Your task to perform on an android device: Search for the best 4k TVs Image 0: 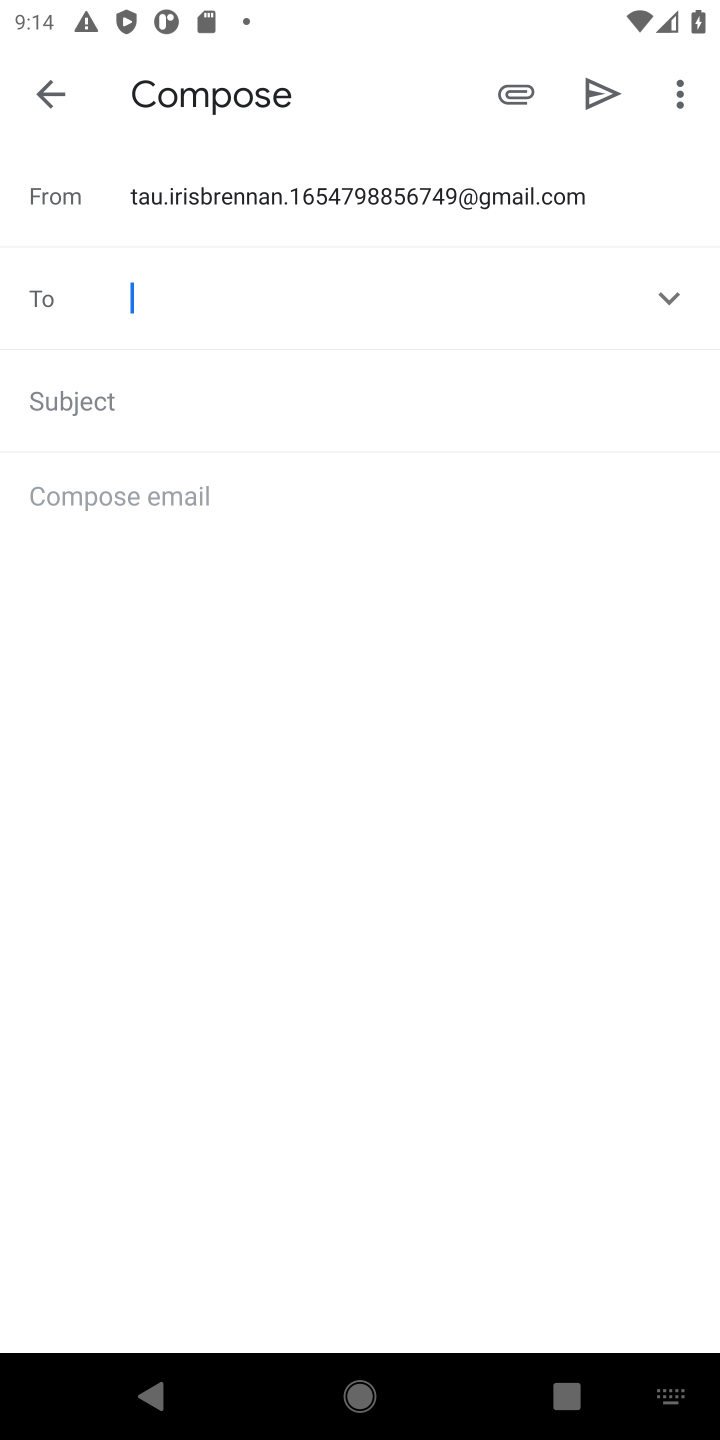
Step 0: press home button
Your task to perform on an android device: Search for the best 4k TVs Image 1: 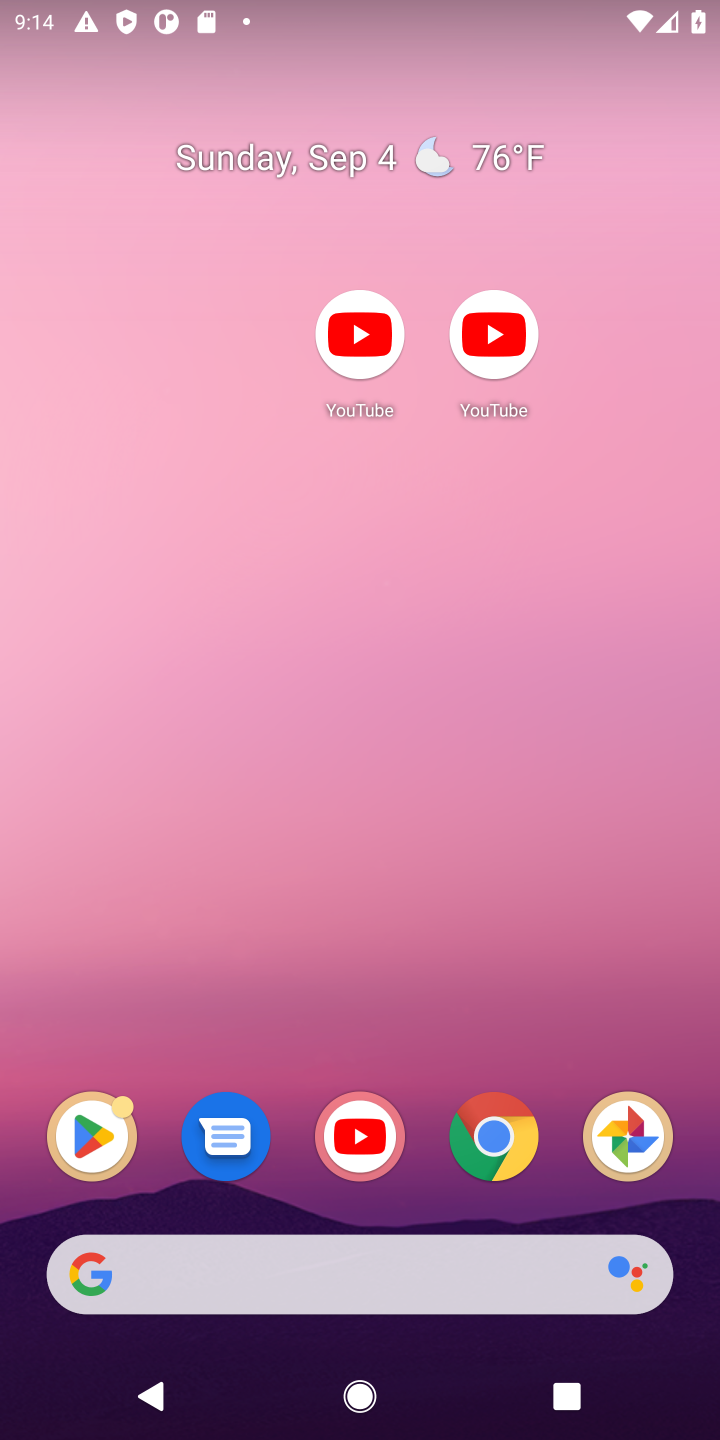
Step 1: click (126, 8)
Your task to perform on an android device: Search for the best 4k TVs Image 2: 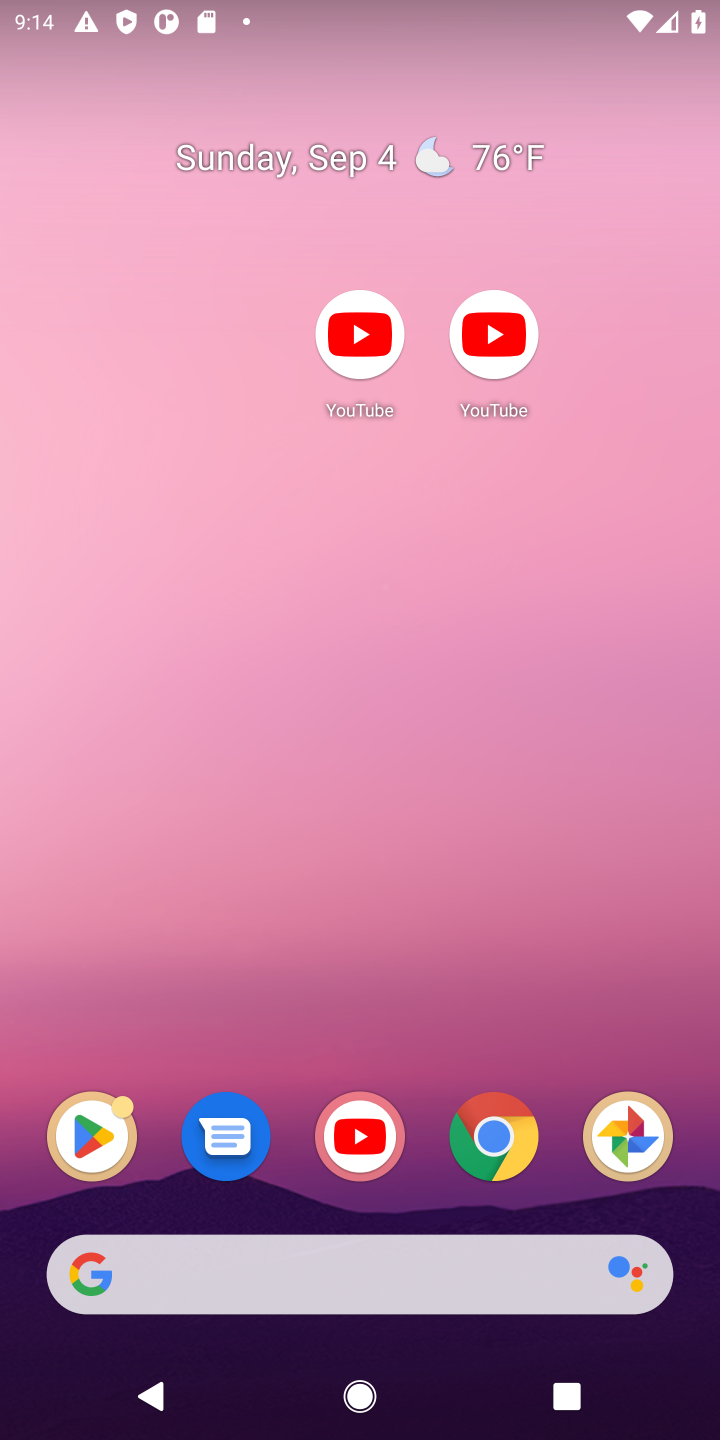
Step 2: click (490, 1137)
Your task to perform on an android device: Search for the best 4k TVs Image 3: 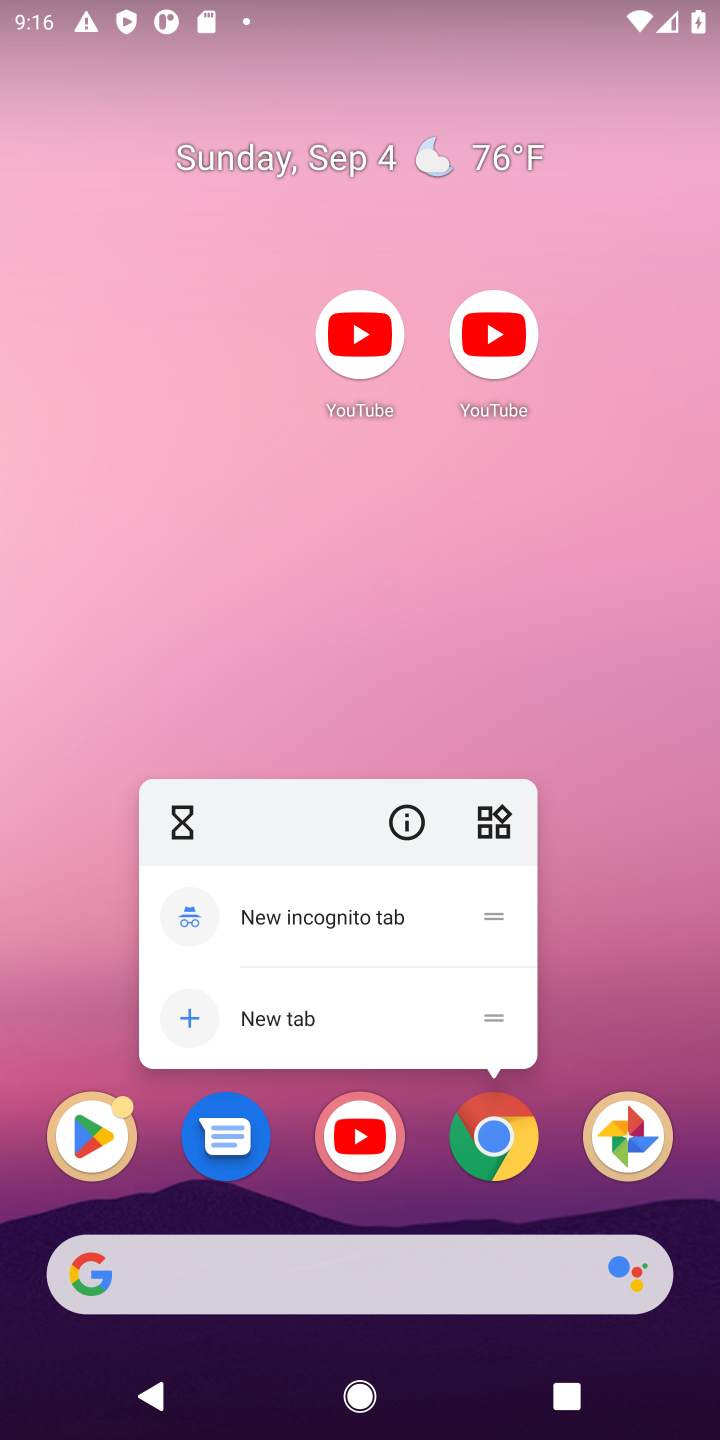
Step 3: drag from (90, 122) to (35, 0)
Your task to perform on an android device: Search for the best 4k TVs Image 4: 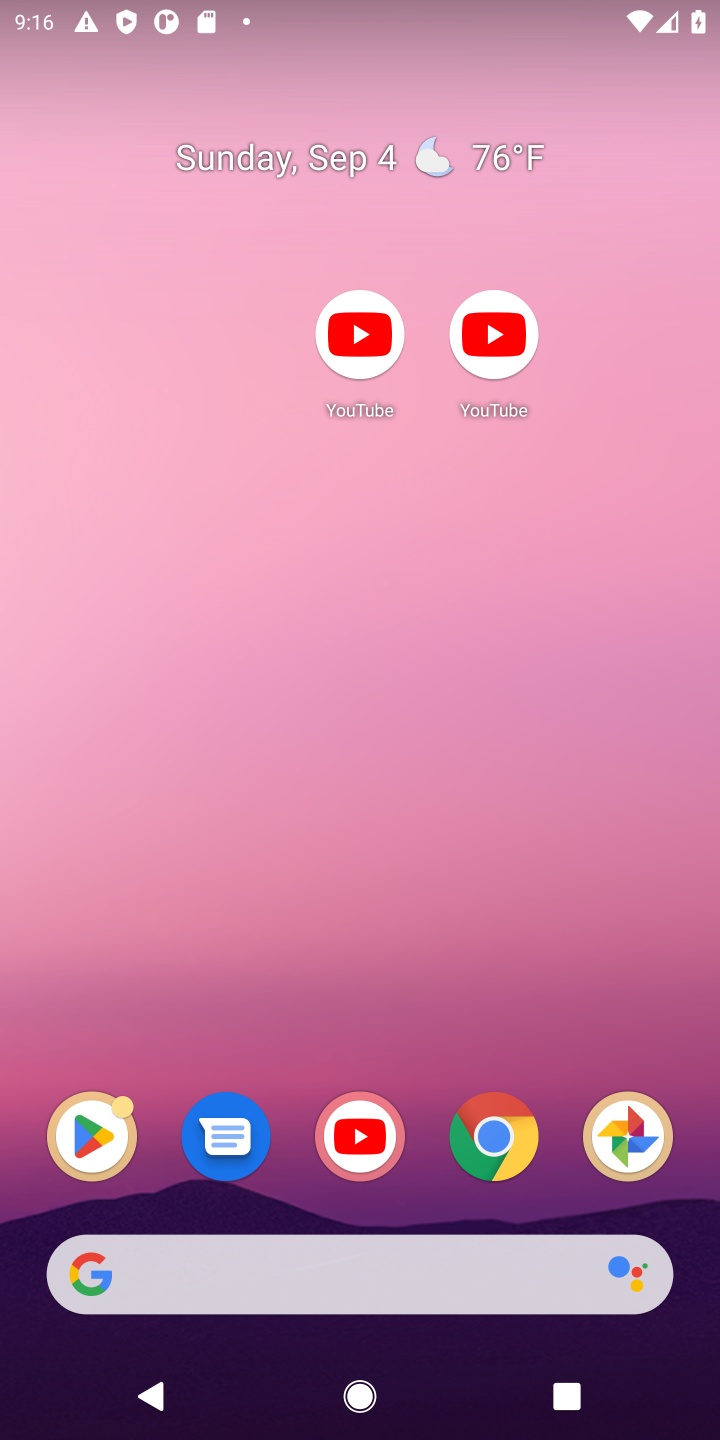
Step 4: click (389, 1092)
Your task to perform on an android device: Search for the best 4k TVs Image 5: 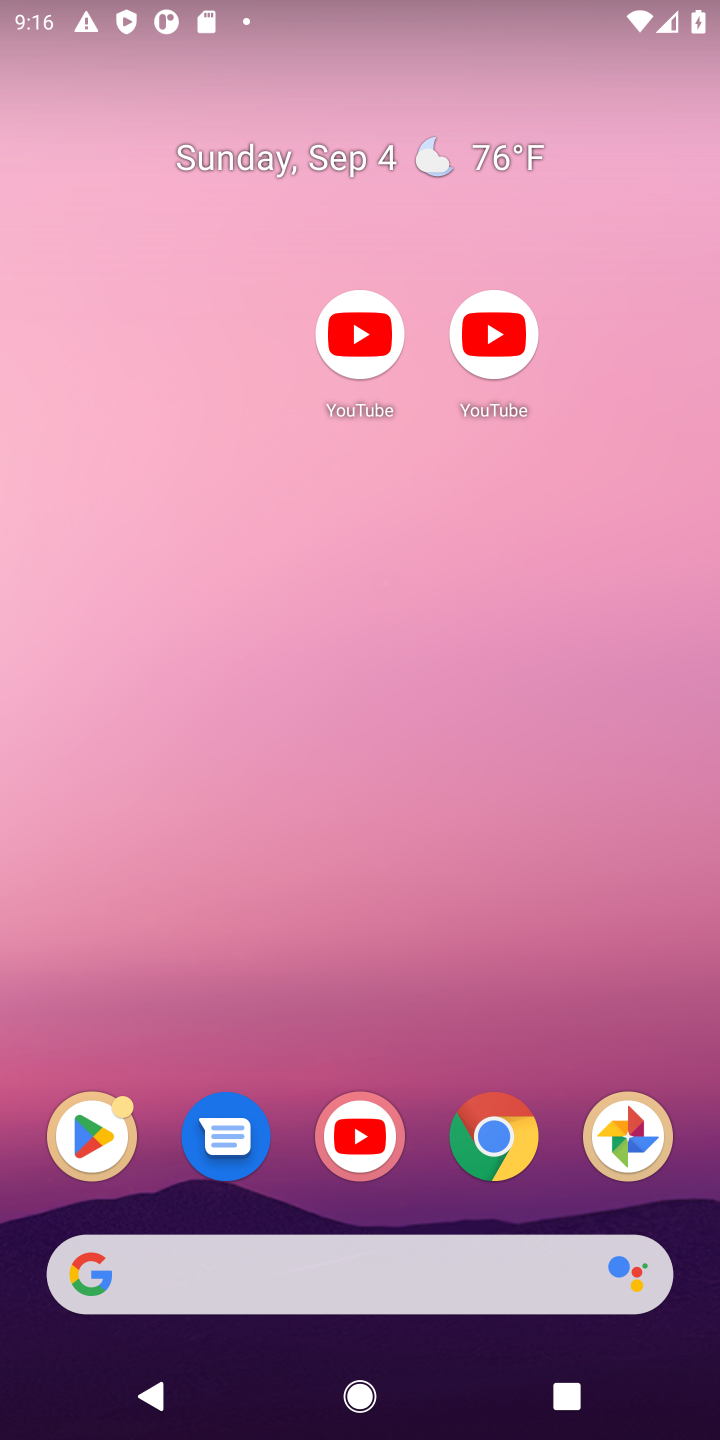
Step 5: drag from (219, 555) to (200, 157)
Your task to perform on an android device: Search for the best 4k TVs Image 6: 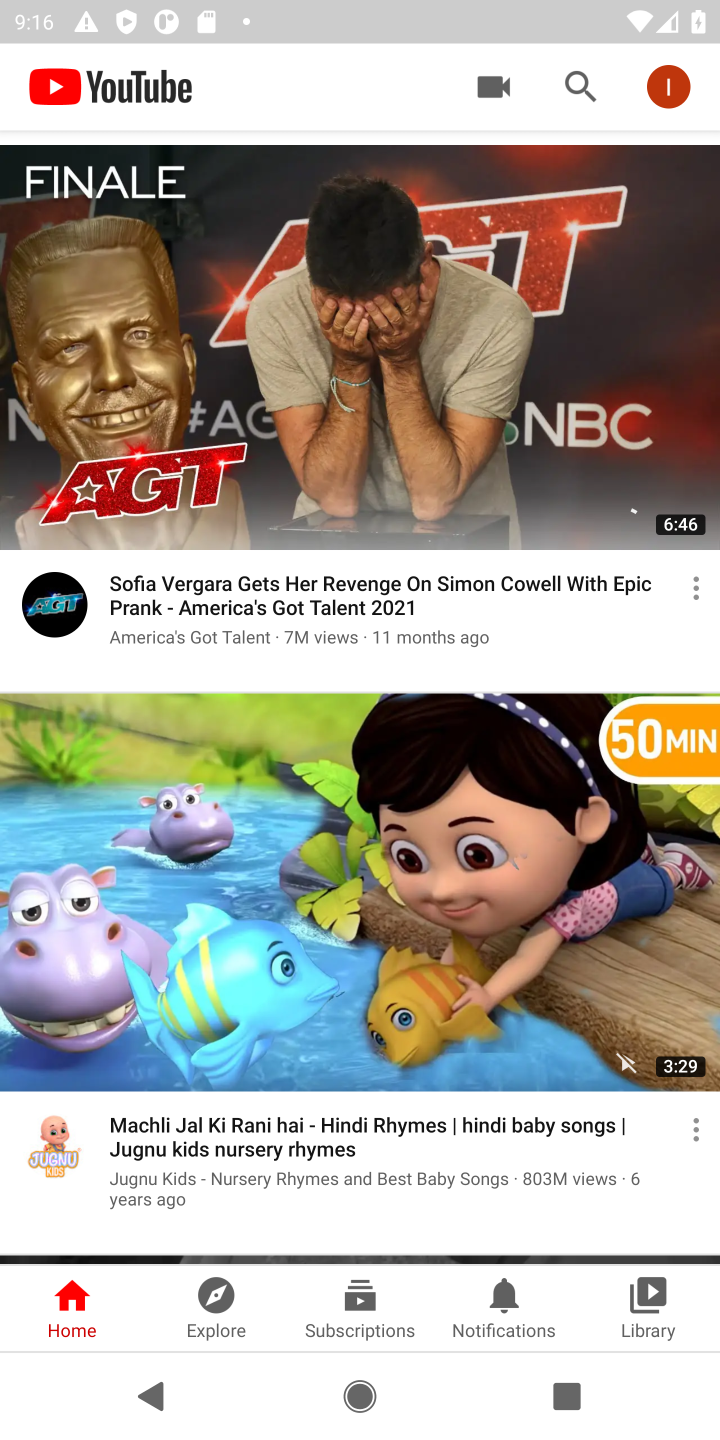
Step 6: click (558, 102)
Your task to perform on an android device: Search for the best 4k TVs Image 7: 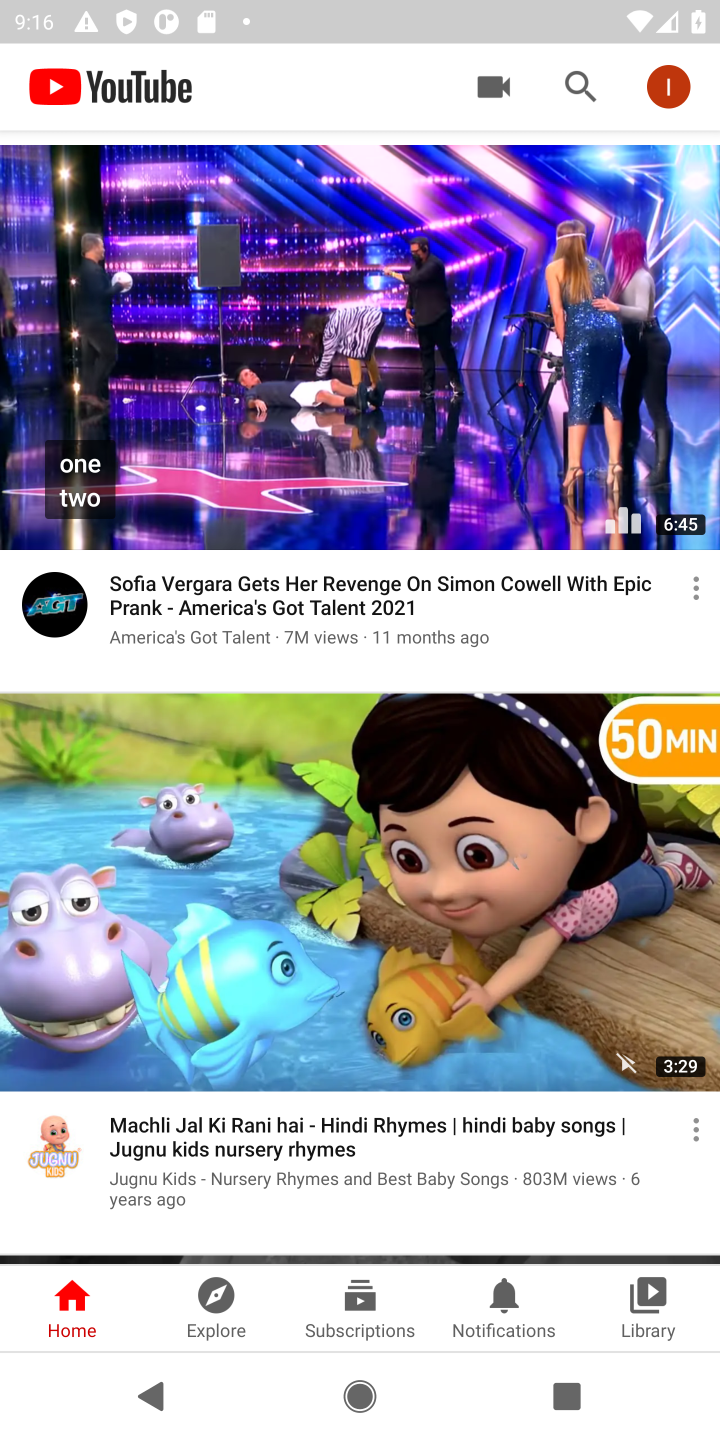
Step 7: press back button
Your task to perform on an android device: Search for the best 4k TVs Image 8: 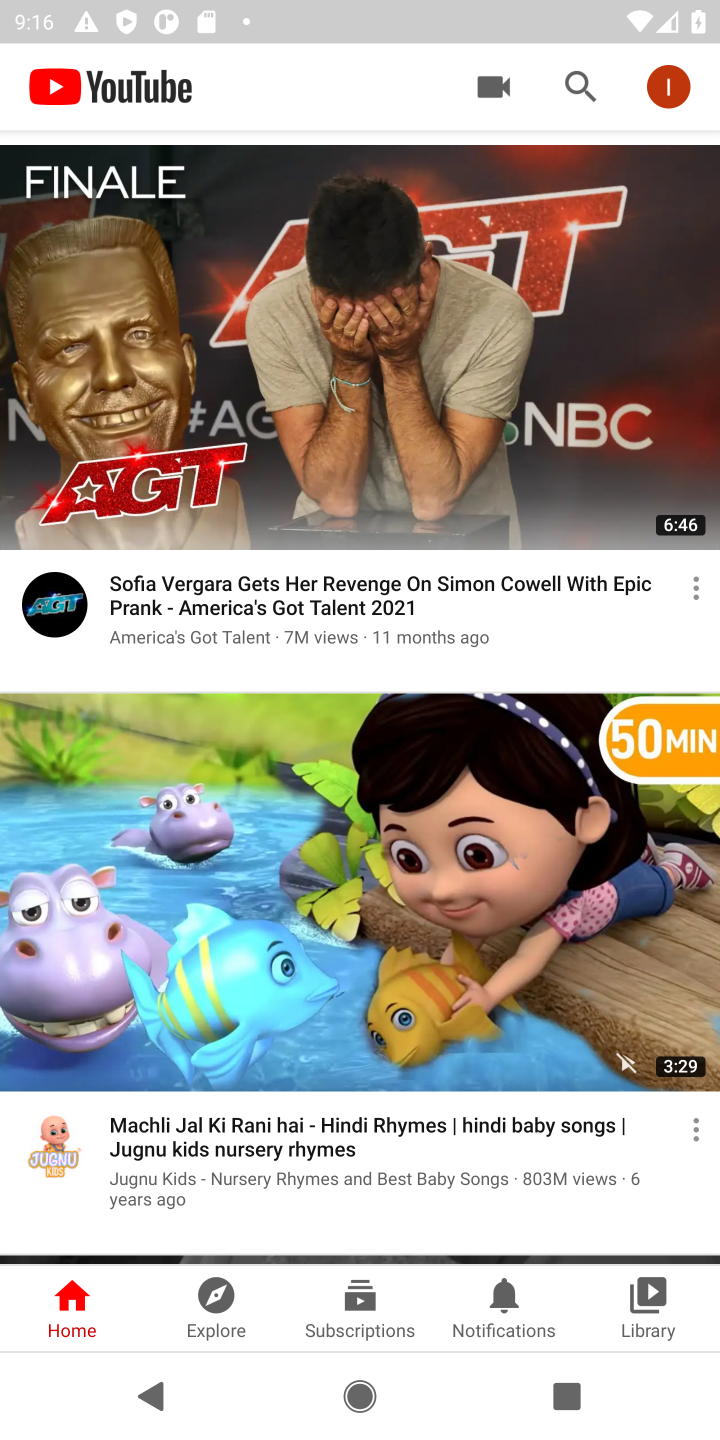
Step 8: press home button
Your task to perform on an android device: Search for the best 4k TVs Image 9: 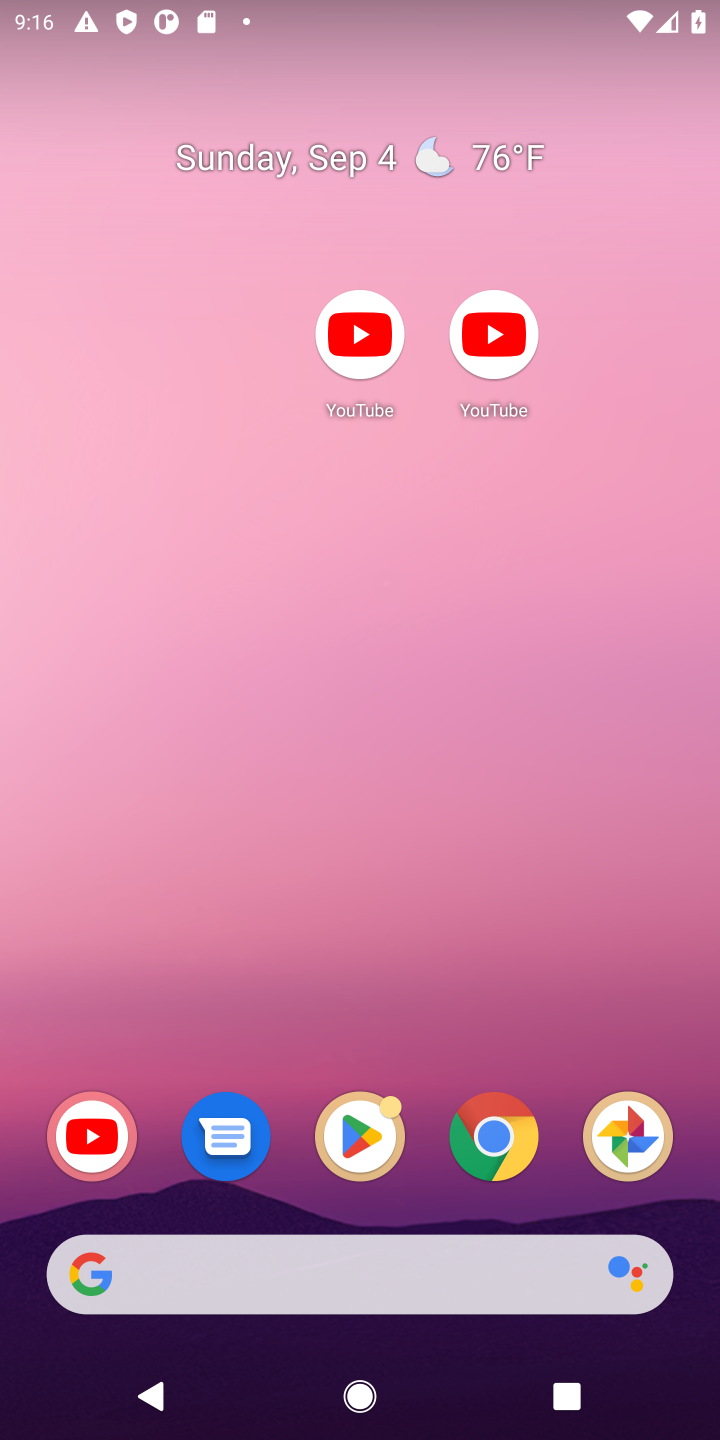
Step 9: drag from (349, 1047) to (226, 16)
Your task to perform on an android device: Search for the best 4k TVs Image 10: 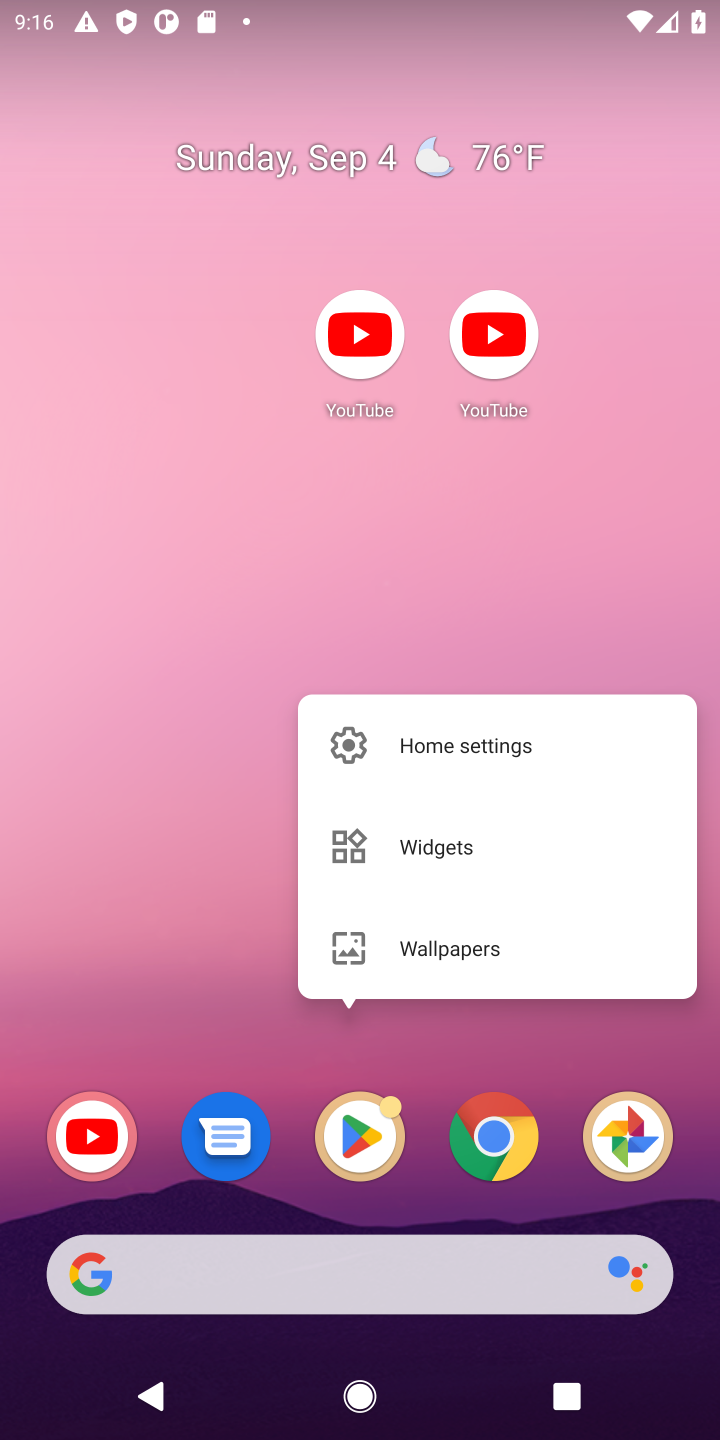
Step 10: click (425, 1178)
Your task to perform on an android device: Search for the best 4k TVs Image 11: 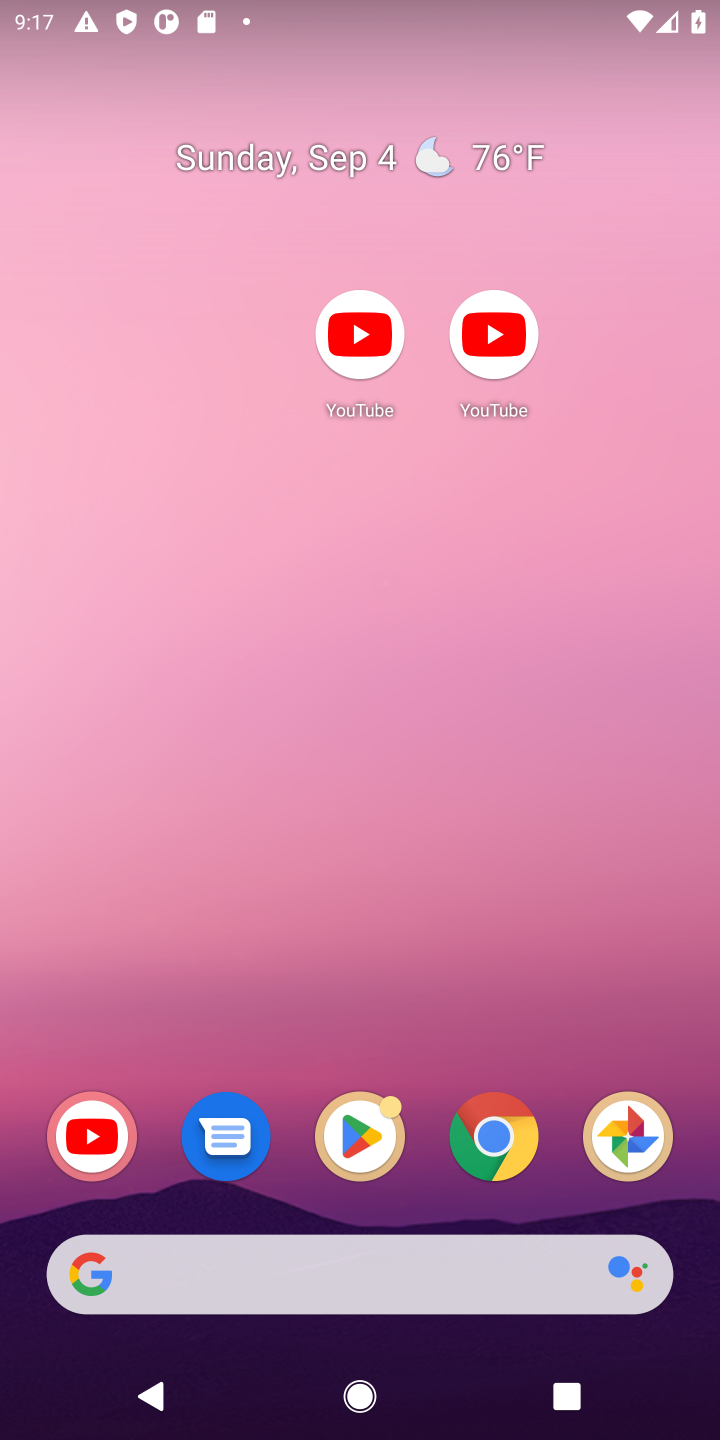
Step 11: drag from (352, 850) to (294, 285)
Your task to perform on an android device: Search for the best 4k TVs Image 12: 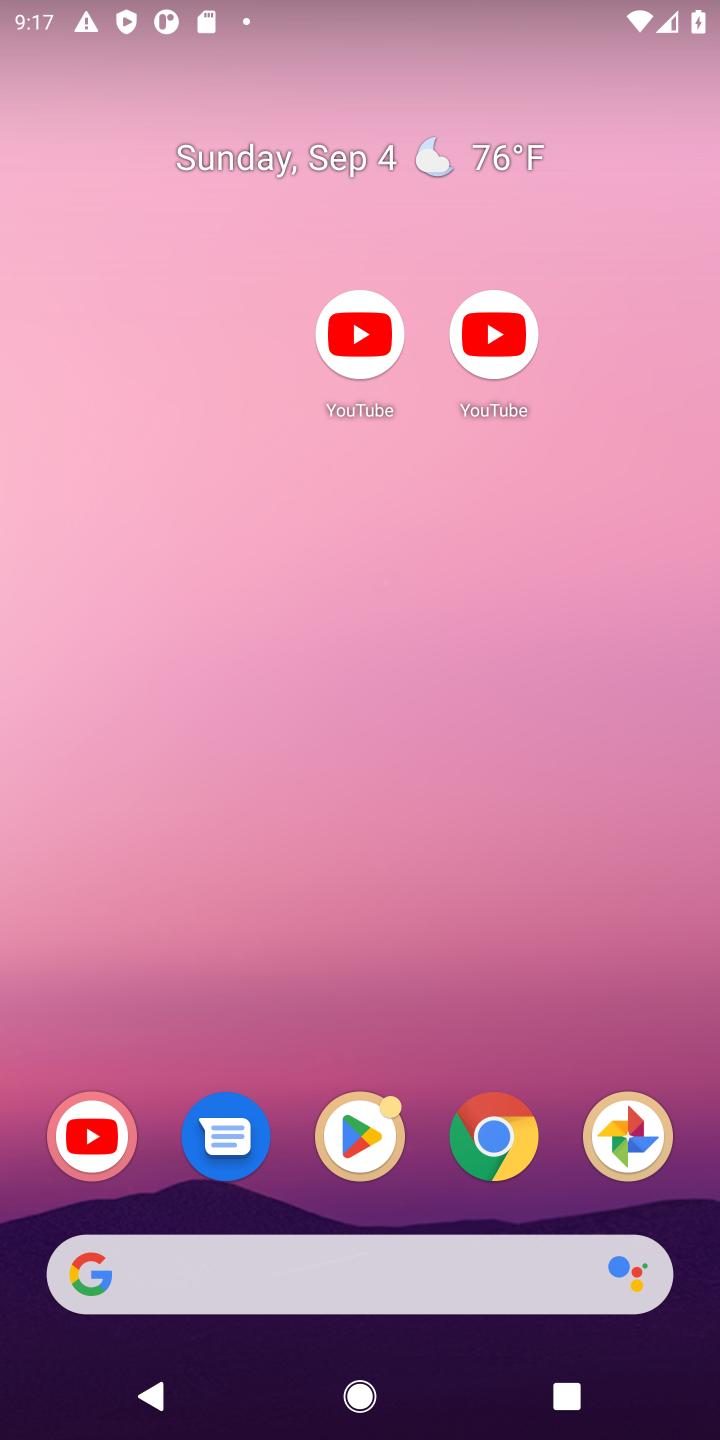
Step 12: drag from (410, 1033) to (389, 205)
Your task to perform on an android device: Search for the best 4k TVs Image 13: 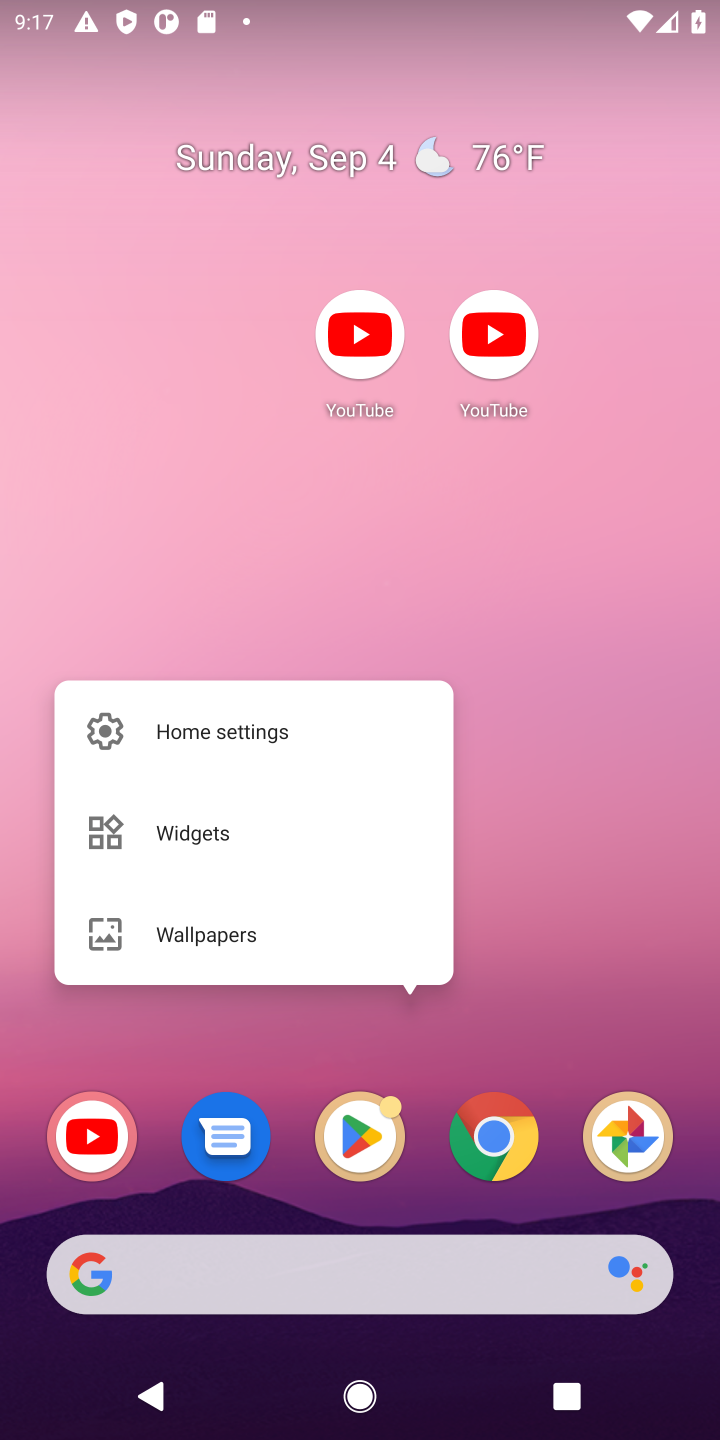
Step 13: click (390, 1198)
Your task to perform on an android device: Search for the best 4k TVs Image 14: 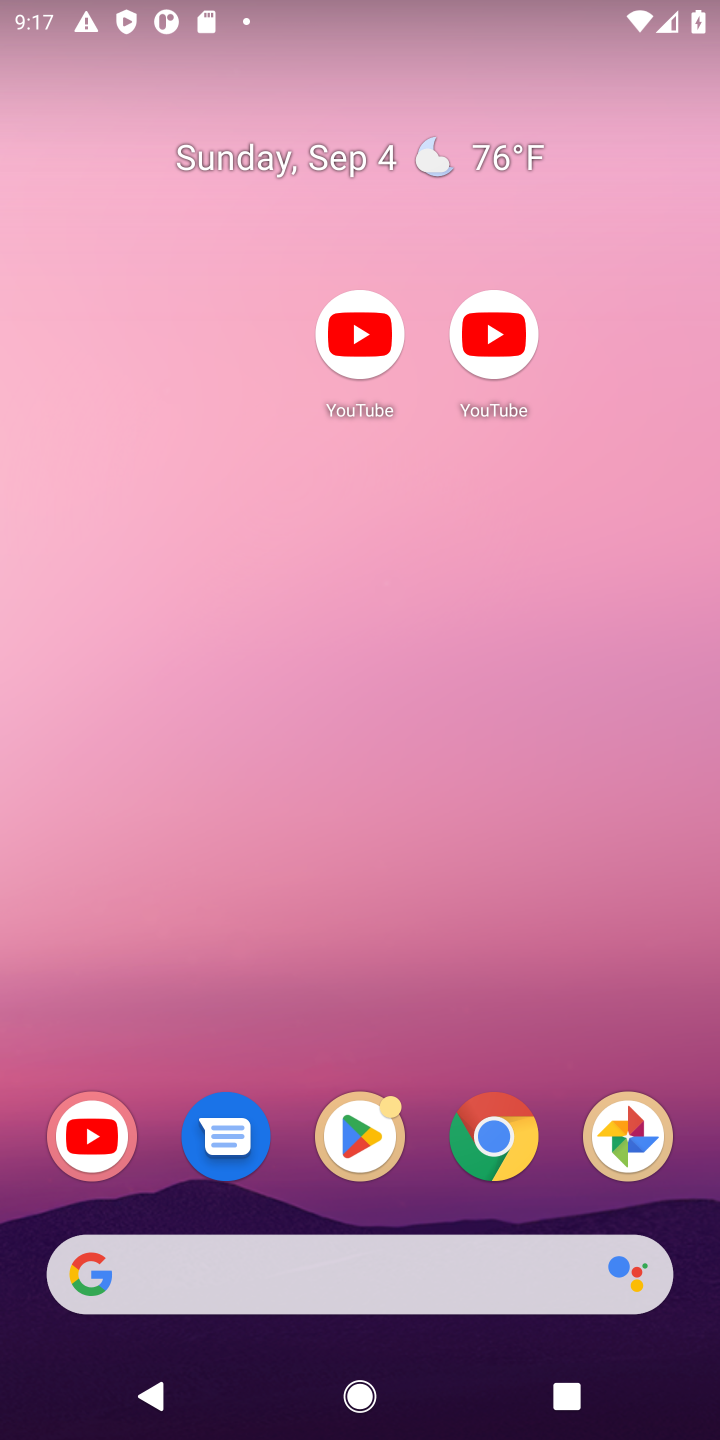
Step 14: click (390, 1198)
Your task to perform on an android device: Search for the best 4k TVs Image 15: 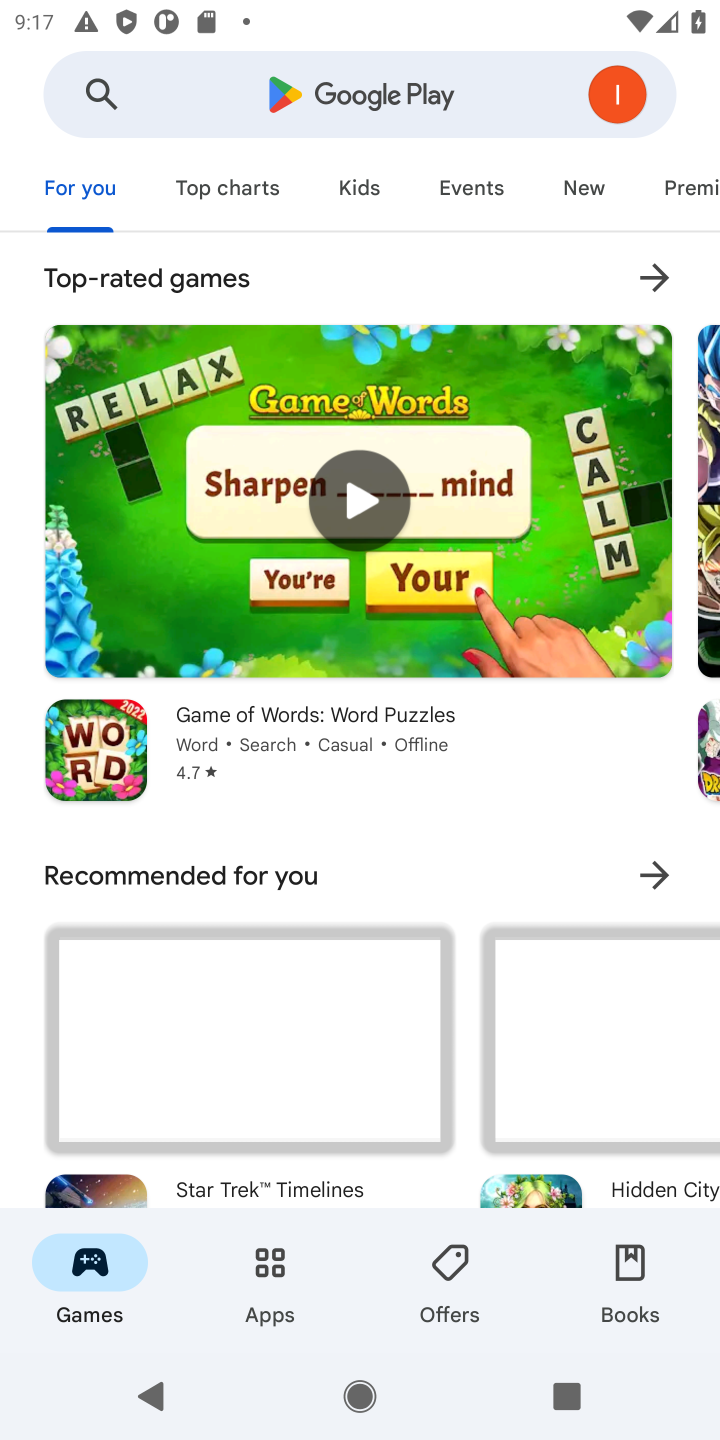
Step 15: press home button
Your task to perform on an android device: Search for the best 4k TVs Image 16: 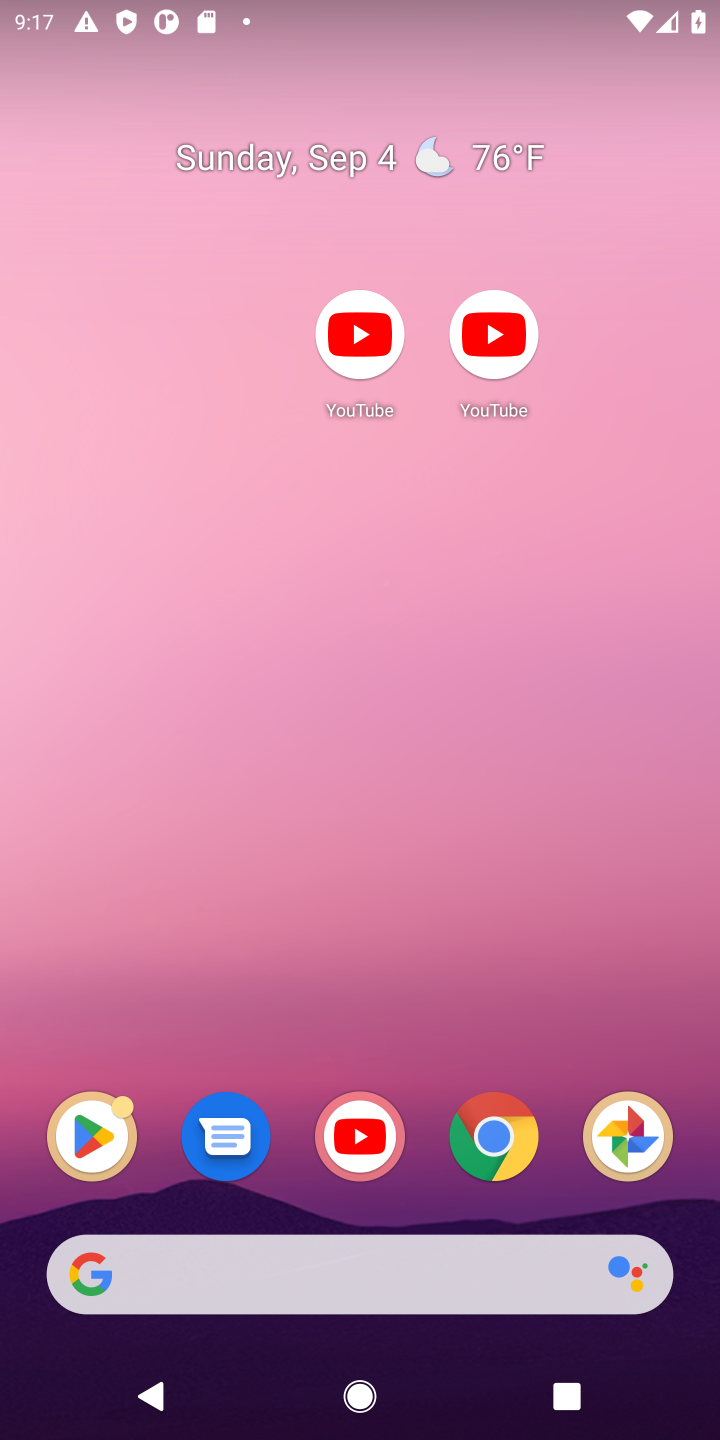
Step 16: drag from (382, 1166) to (325, 246)
Your task to perform on an android device: Search for the best 4k TVs Image 17: 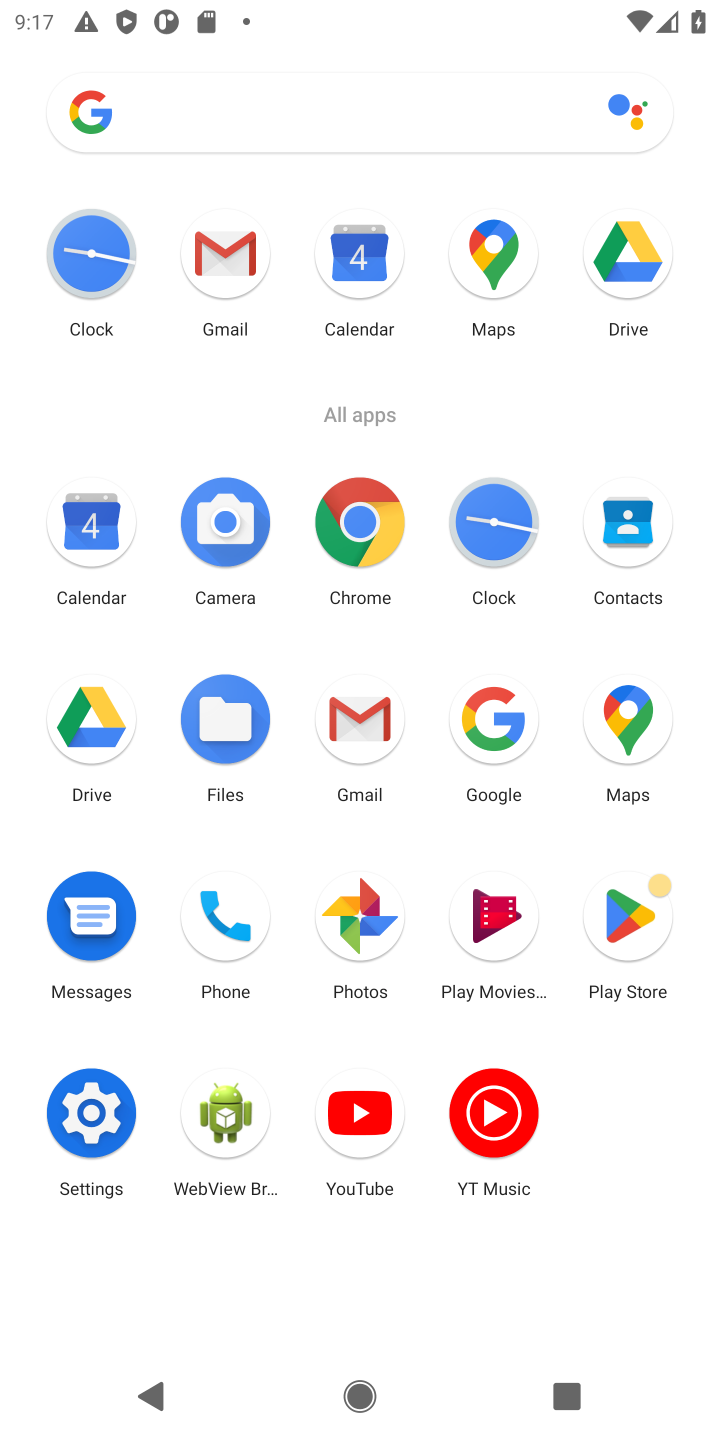
Step 17: click (491, 710)
Your task to perform on an android device: Search for the best 4k TVs Image 18: 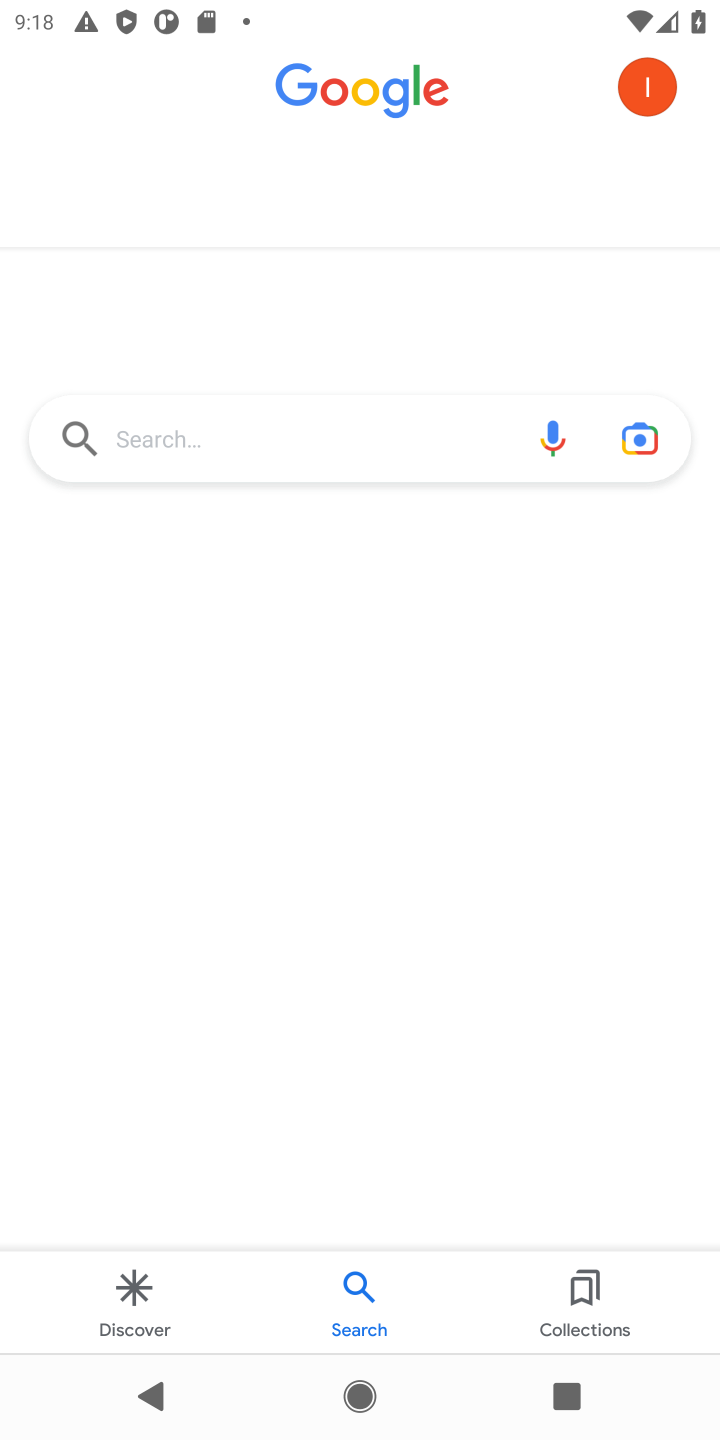
Step 18: click (165, 417)
Your task to perform on an android device: Search for the best 4k TVs Image 19: 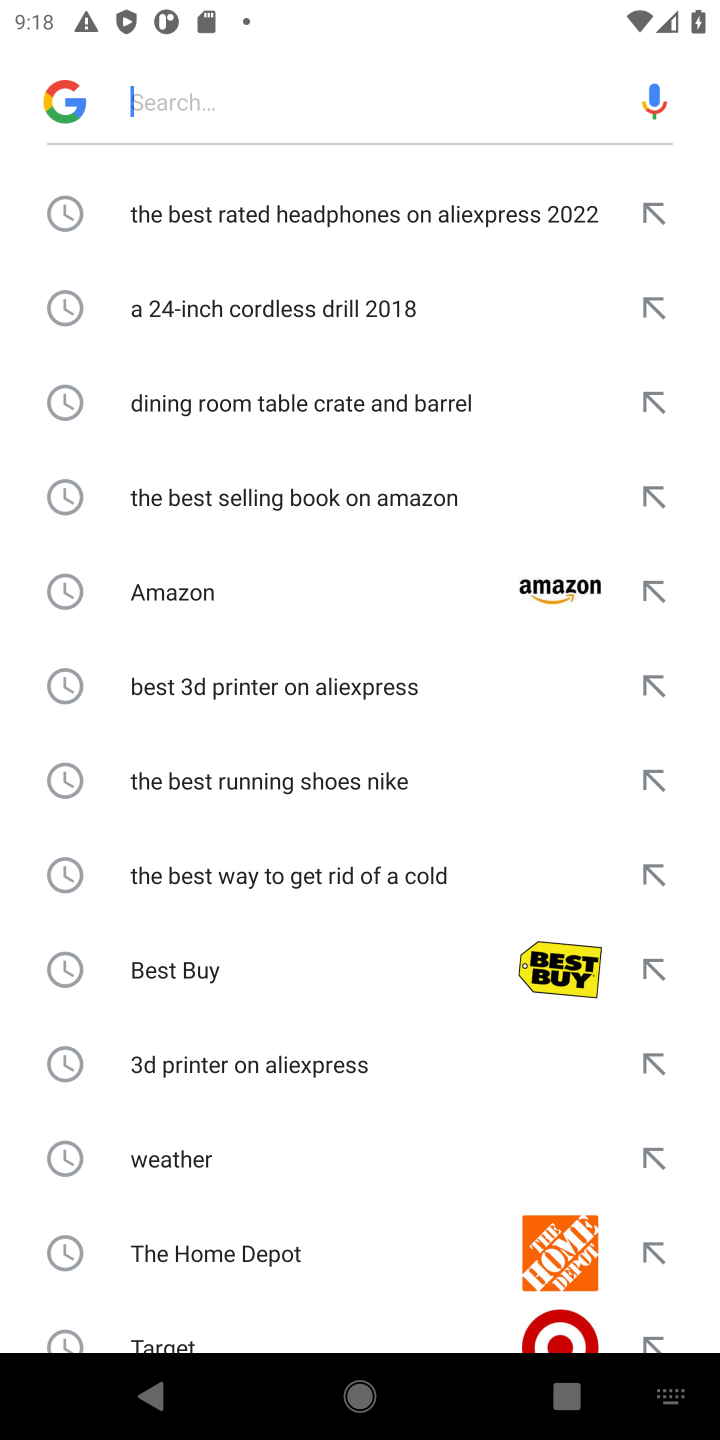
Step 19: type " the best 4k TVs"
Your task to perform on an android device: Search for the best 4k TVs Image 20: 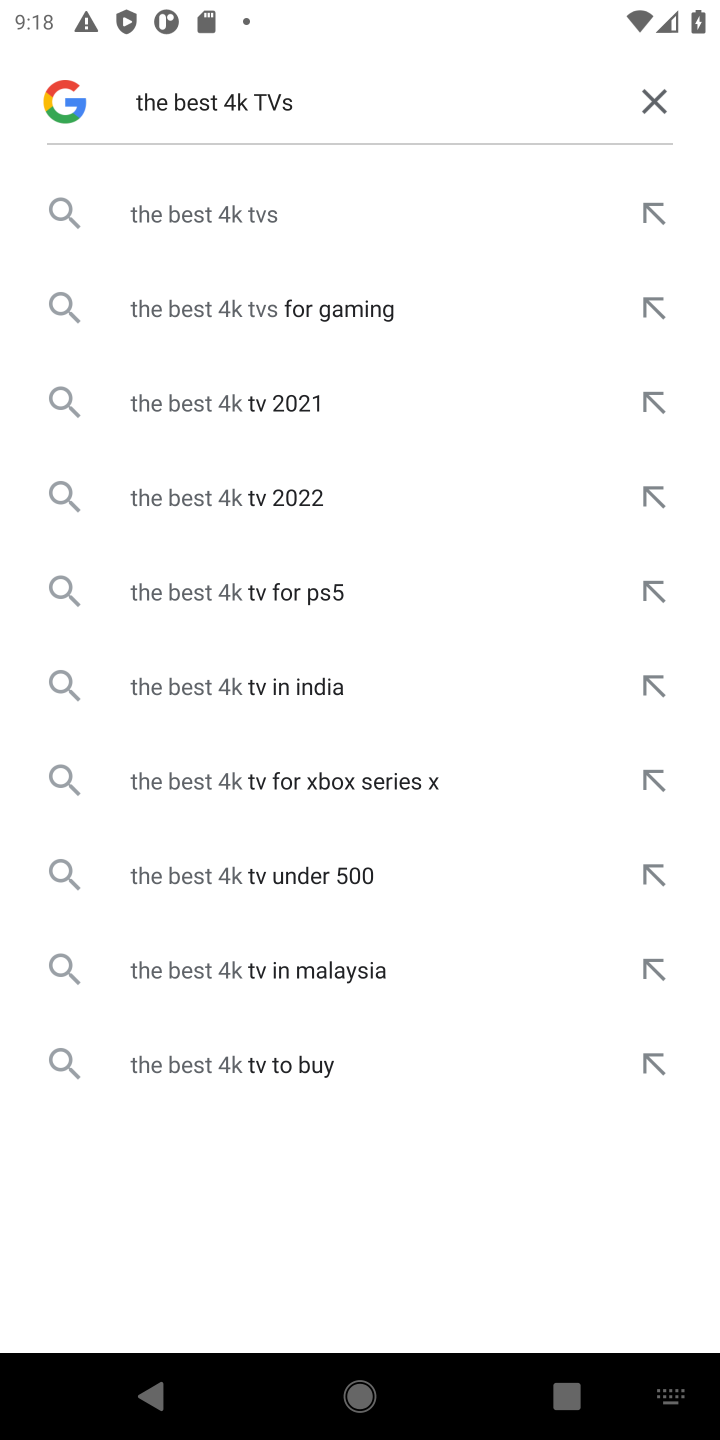
Step 20: click (238, 208)
Your task to perform on an android device: Search for the best 4k TVs Image 21: 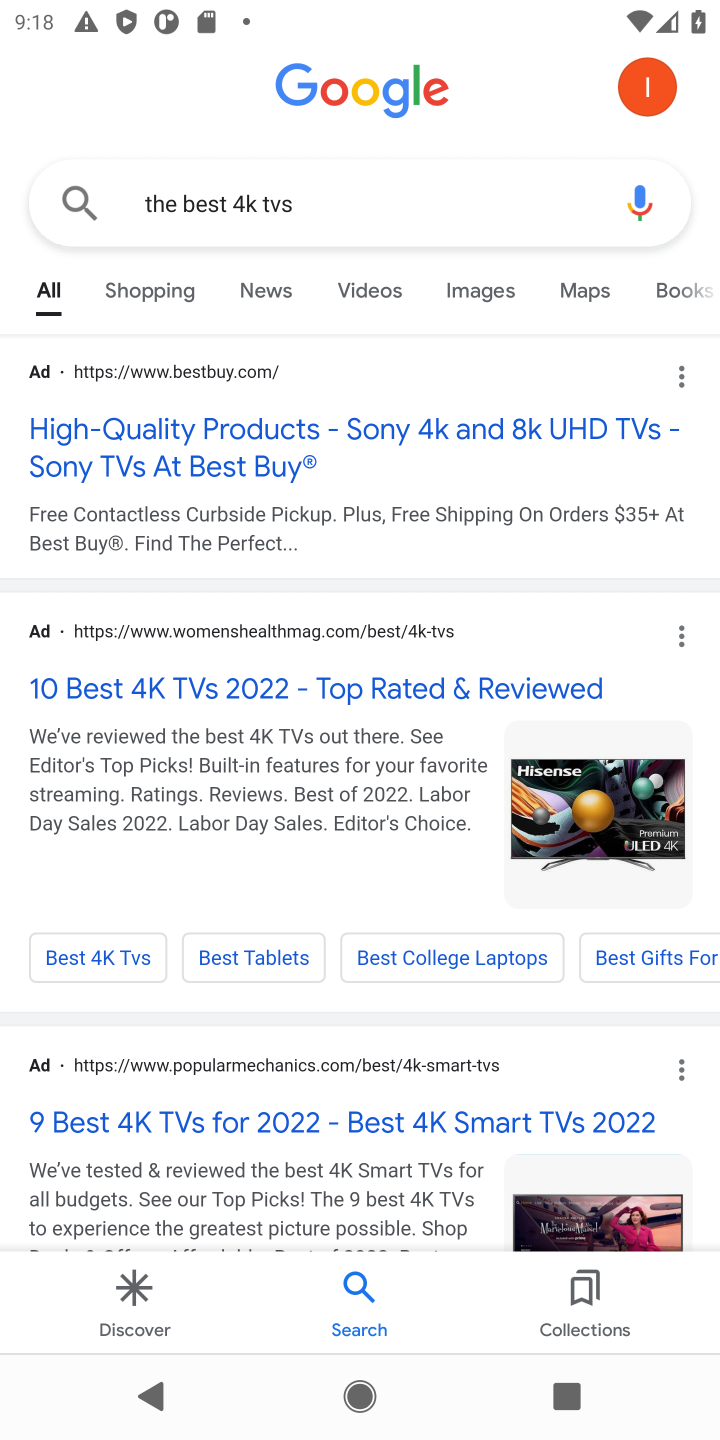
Step 21: task complete